Your task to perform on an android device: find which apps use the phone's location Image 0: 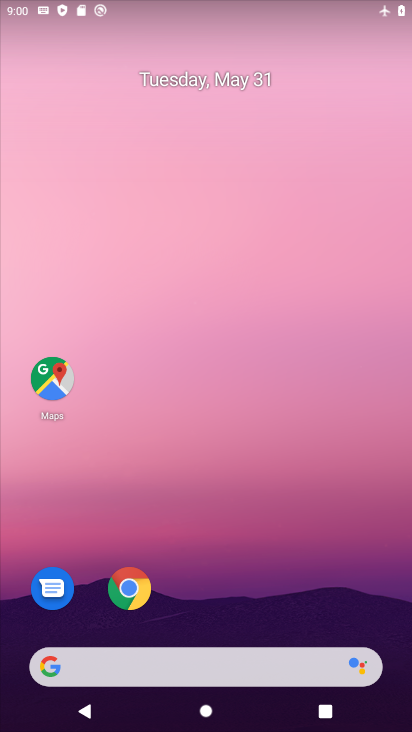
Step 0: drag from (155, 649) to (127, 23)
Your task to perform on an android device: find which apps use the phone's location Image 1: 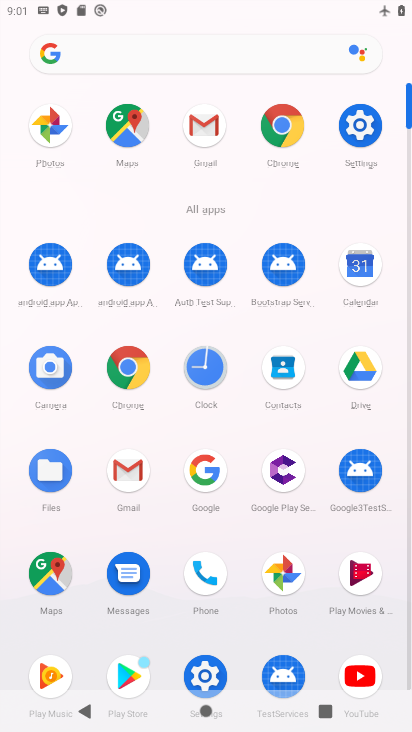
Step 1: click (366, 133)
Your task to perform on an android device: find which apps use the phone's location Image 2: 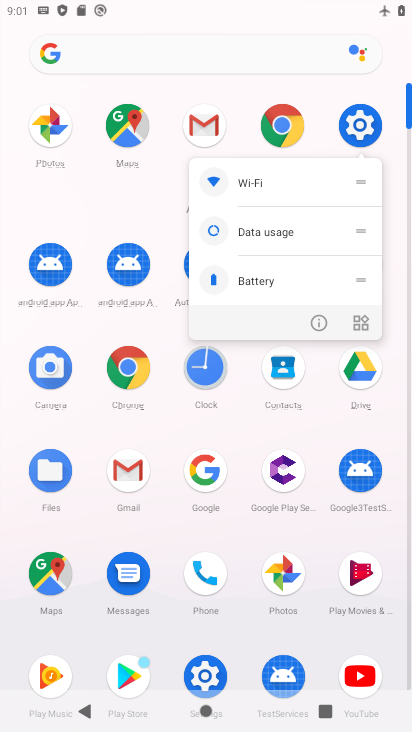
Step 2: click (366, 133)
Your task to perform on an android device: find which apps use the phone's location Image 3: 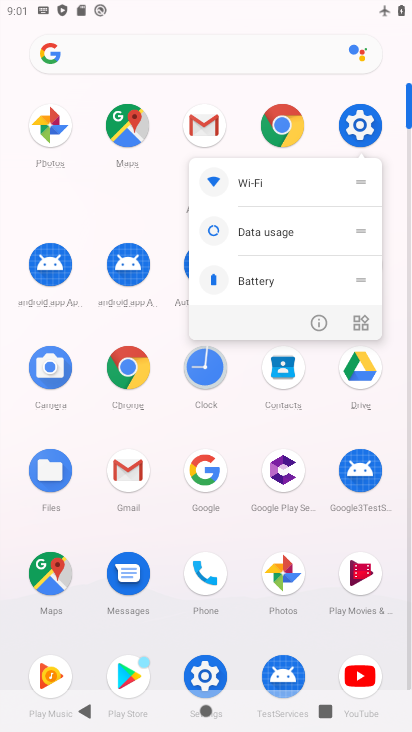
Step 3: click (366, 133)
Your task to perform on an android device: find which apps use the phone's location Image 4: 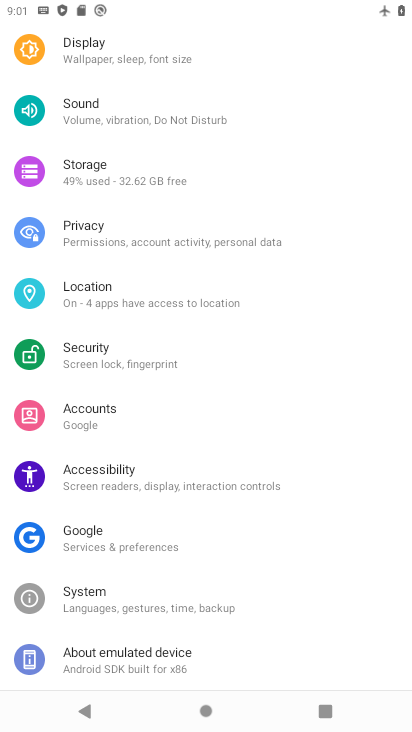
Step 4: click (164, 297)
Your task to perform on an android device: find which apps use the phone's location Image 5: 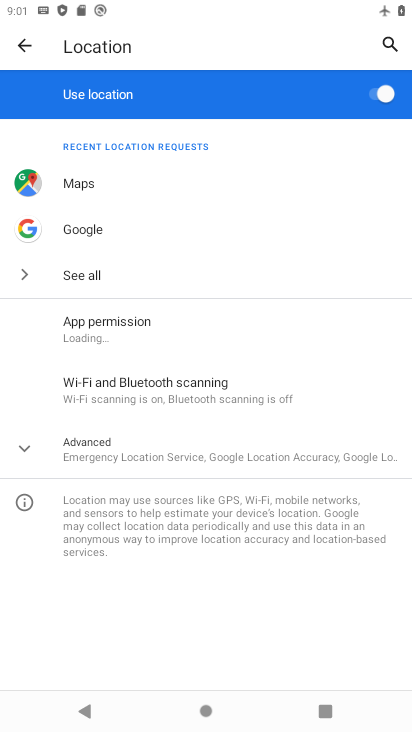
Step 5: click (80, 270)
Your task to perform on an android device: find which apps use the phone's location Image 6: 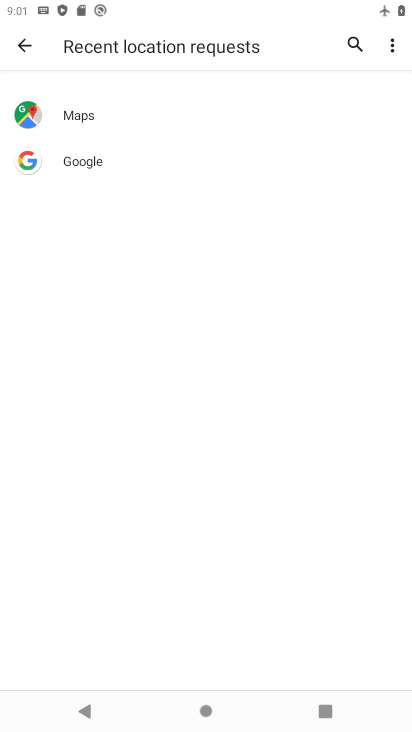
Step 6: task complete